Your task to perform on an android device: Go to eBay Image 0: 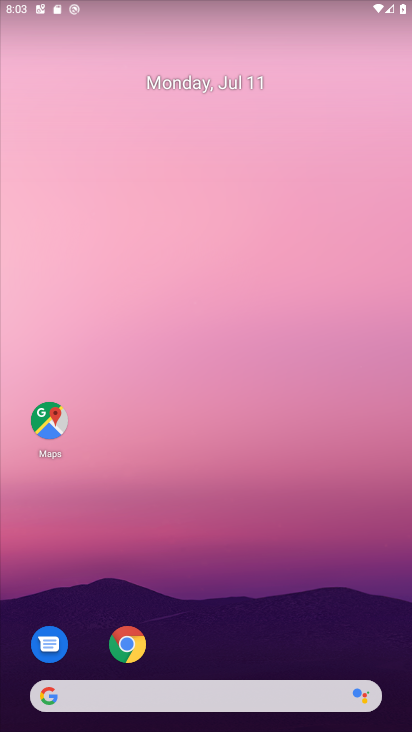
Step 0: click (121, 644)
Your task to perform on an android device: Go to eBay Image 1: 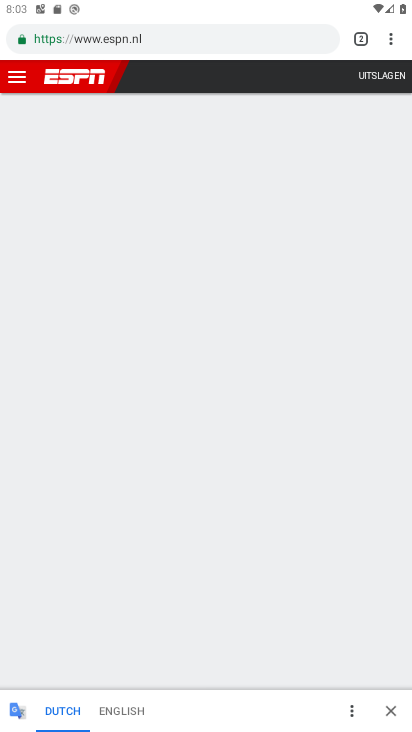
Step 1: click (397, 34)
Your task to perform on an android device: Go to eBay Image 2: 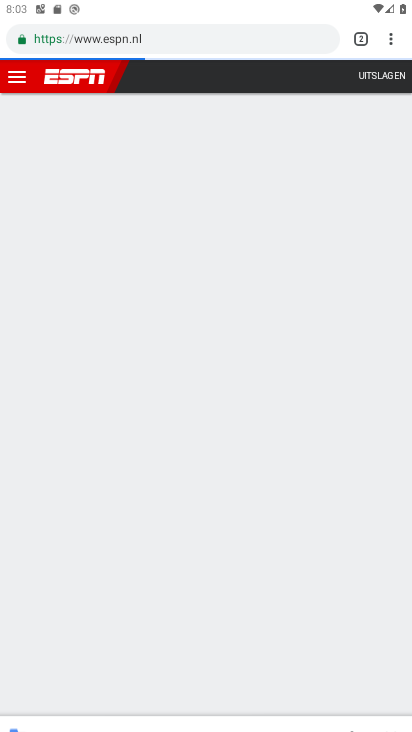
Step 2: click (397, 34)
Your task to perform on an android device: Go to eBay Image 3: 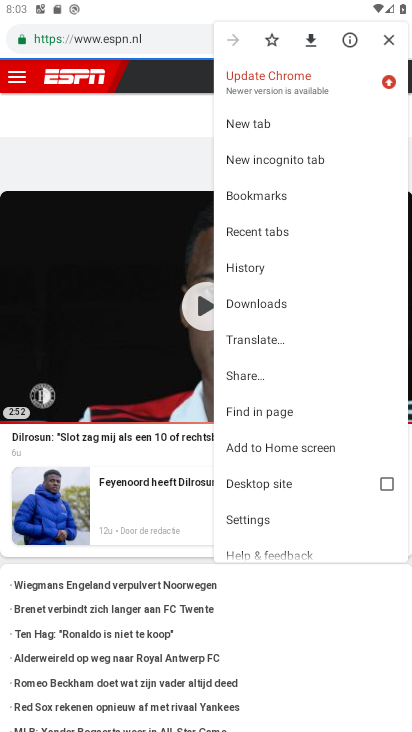
Step 3: click (263, 135)
Your task to perform on an android device: Go to eBay Image 4: 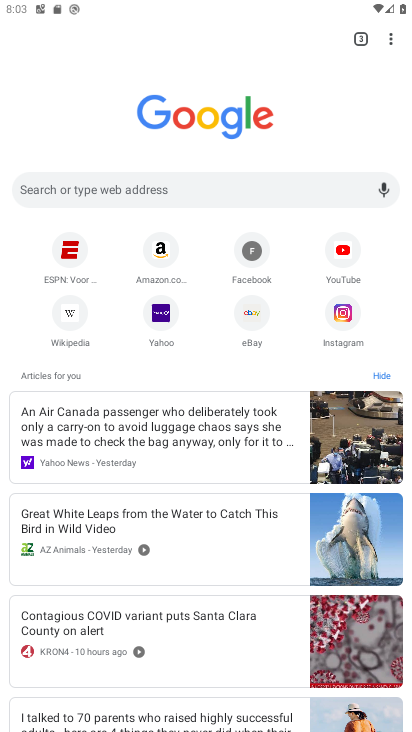
Step 4: click (257, 312)
Your task to perform on an android device: Go to eBay Image 5: 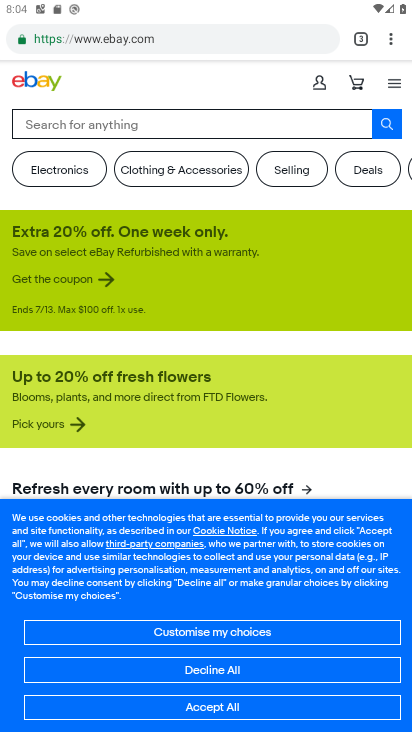
Step 5: task complete